Your task to perform on an android device: change notifications settings Image 0: 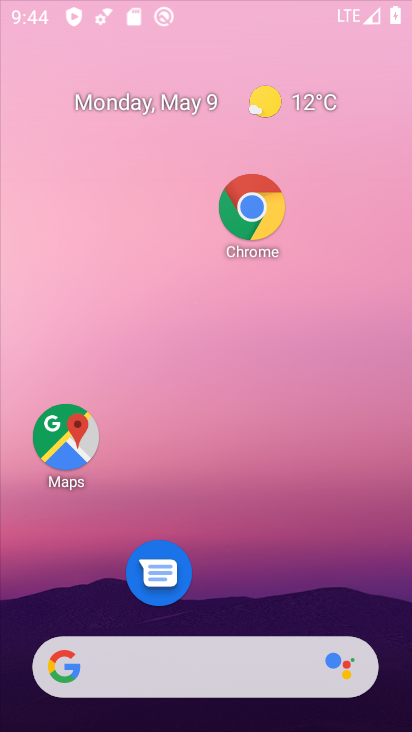
Step 0: click (371, 43)
Your task to perform on an android device: change notifications settings Image 1: 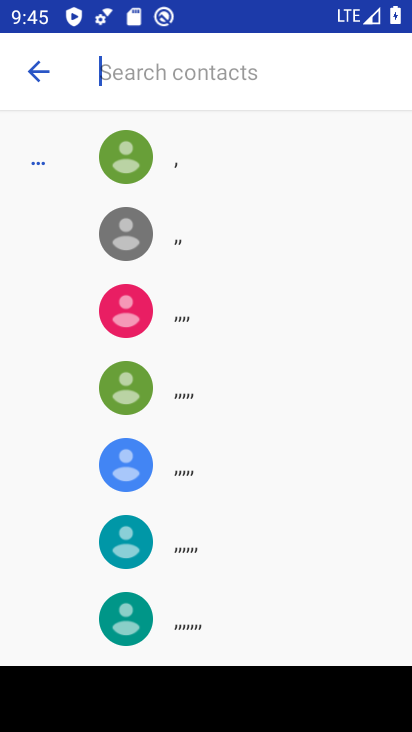
Step 1: press home button
Your task to perform on an android device: change notifications settings Image 2: 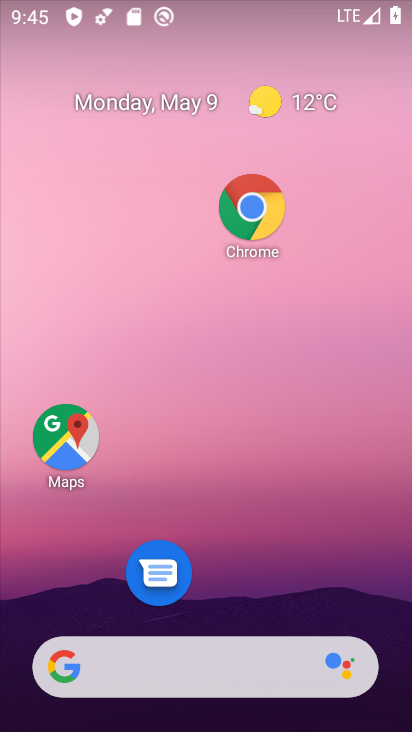
Step 2: drag from (180, 496) to (136, 7)
Your task to perform on an android device: change notifications settings Image 3: 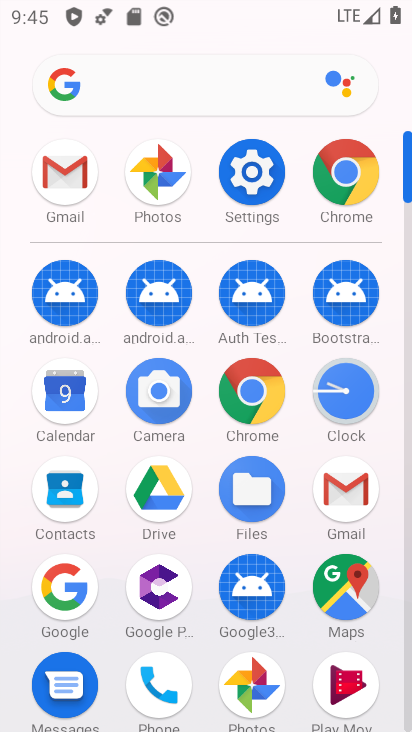
Step 3: click (250, 175)
Your task to perform on an android device: change notifications settings Image 4: 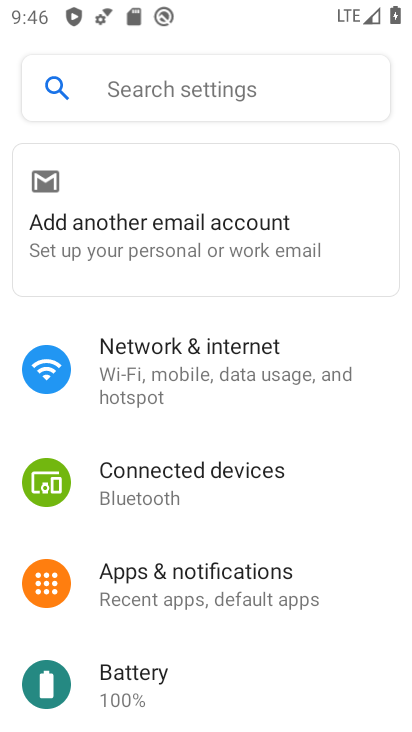
Step 4: click (234, 566)
Your task to perform on an android device: change notifications settings Image 5: 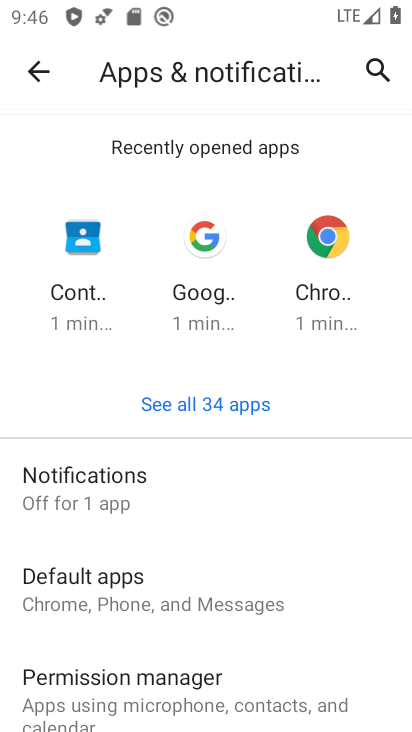
Step 5: drag from (234, 566) to (289, 229)
Your task to perform on an android device: change notifications settings Image 6: 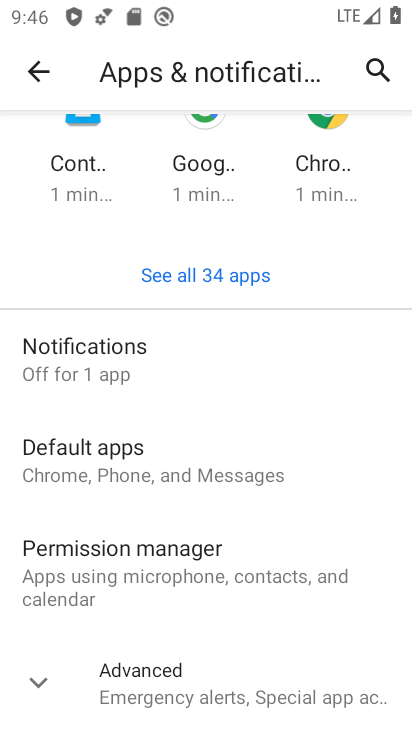
Step 6: click (166, 380)
Your task to perform on an android device: change notifications settings Image 7: 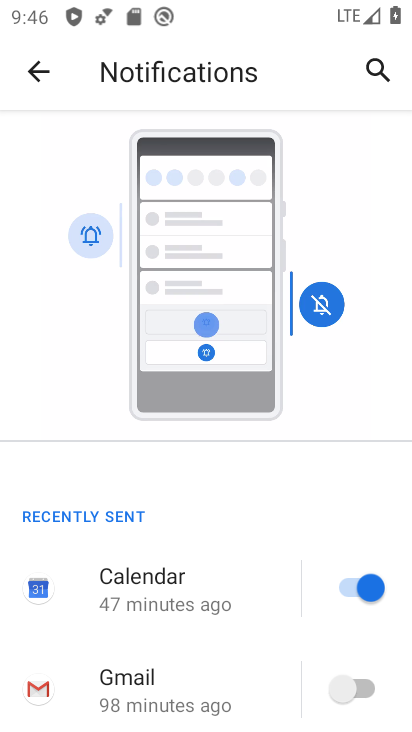
Step 7: click (357, 704)
Your task to perform on an android device: change notifications settings Image 8: 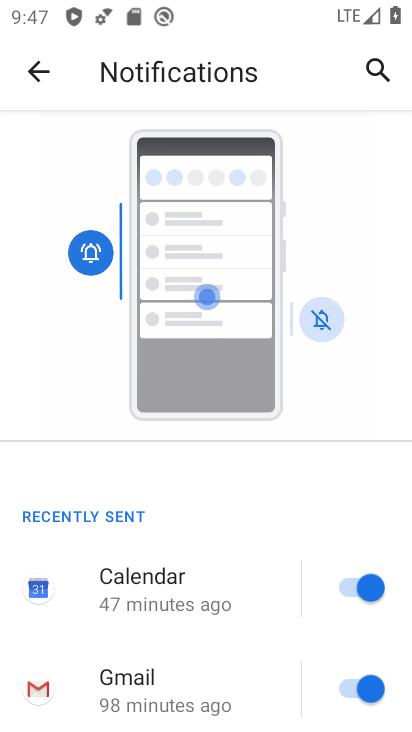
Step 8: task complete